Your task to perform on an android device: turn off notifications settings in the gmail app Image 0: 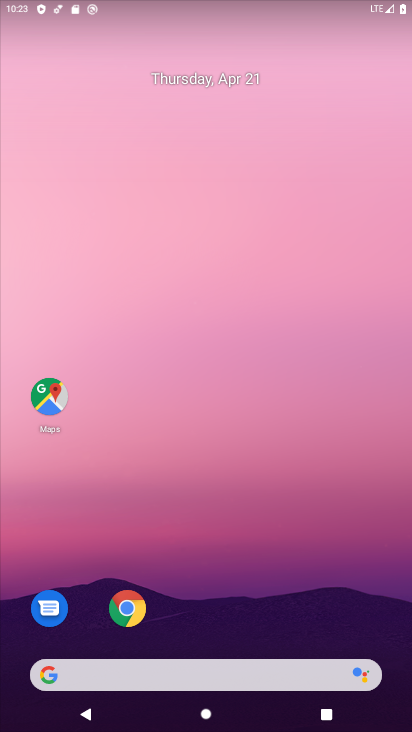
Step 0: drag from (209, 508) to (132, 111)
Your task to perform on an android device: turn off notifications settings in the gmail app Image 1: 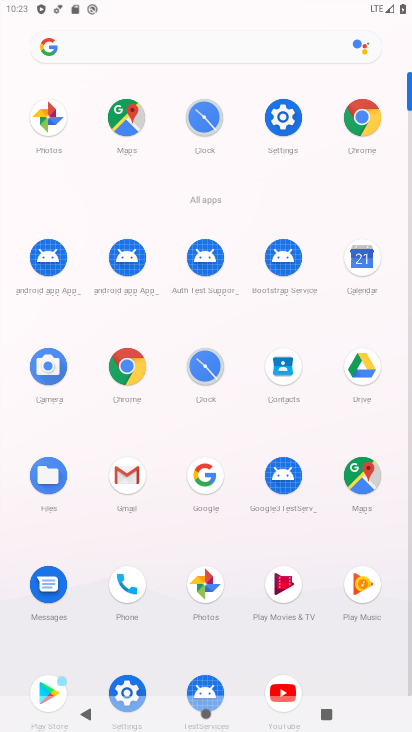
Step 1: click (117, 465)
Your task to perform on an android device: turn off notifications settings in the gmail app Image 2: 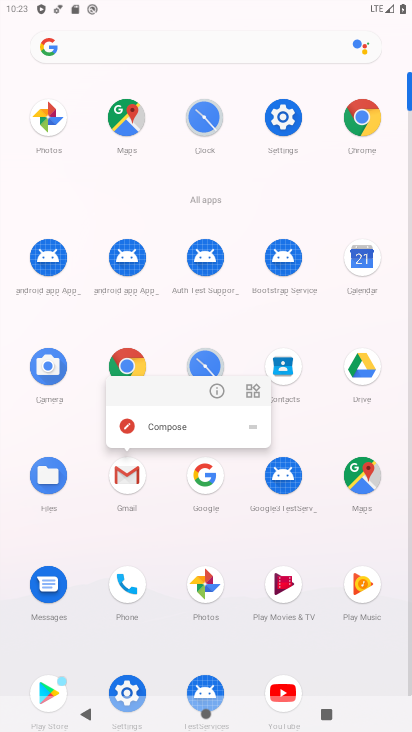
Step 2: click (128, 473)
Your task to perform on an android device: turn off notifications settings in the gmail app Image 3: 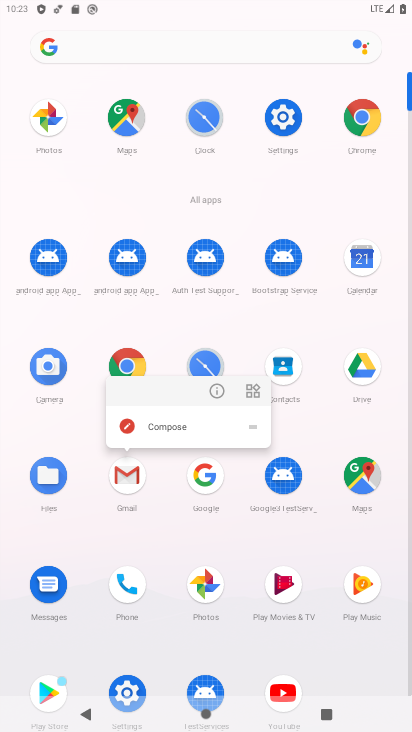
Step 3: click (128, 473)
Your task to perform on an android device: turn off notifications settings in the gmail app Image 4: 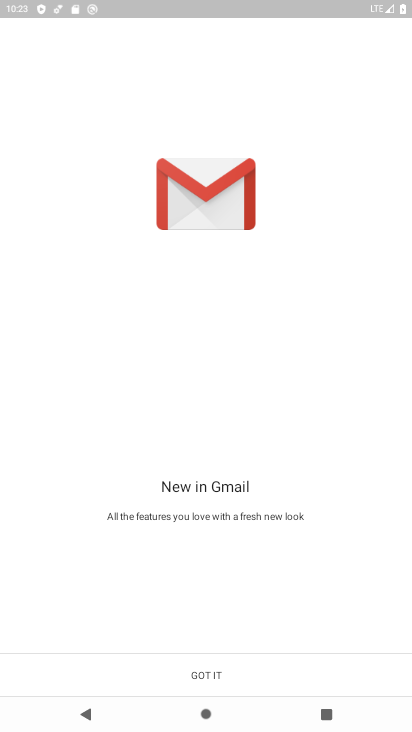
Step 4: click (206, 672)
Your task to perform on an android device: turn off notifications settings in the gmail app Image 5: 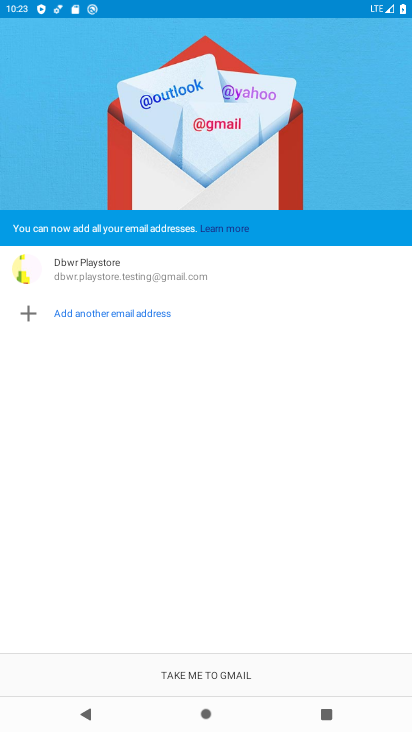
Step 5: click (206, 672)
Your task to perform on an android device: turn off notifications settings in the gmail app Image 6: 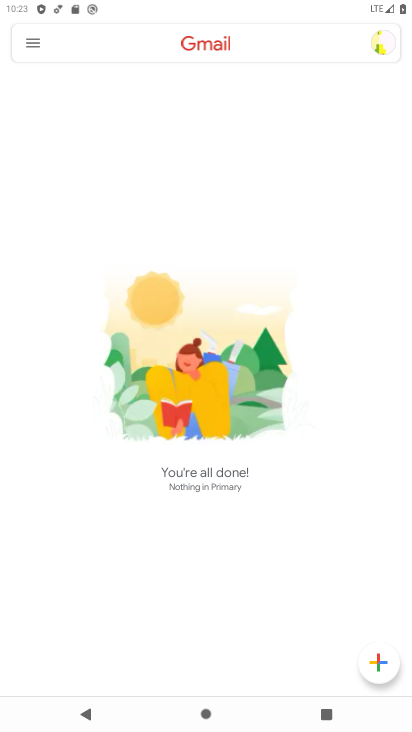
Step 6: click (23, 42)
Your task to perform on an android device: turn off notifications settings in the gmail app Image 7: 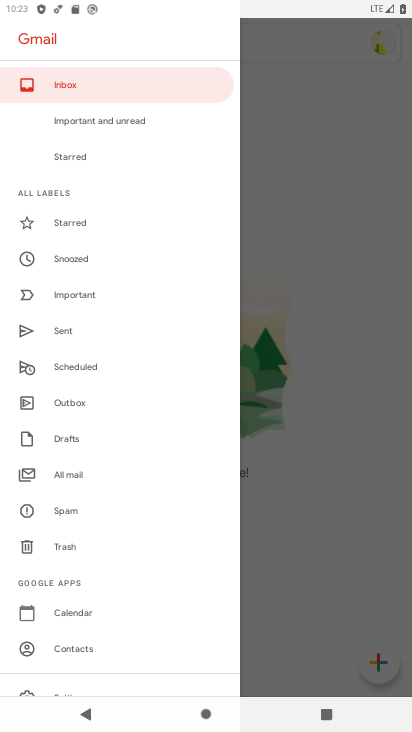
Step 7: drag from (130, 677) to (158, 287)
Your task to perform on an android device: turn off notifications settings in the gmail app Image 8: 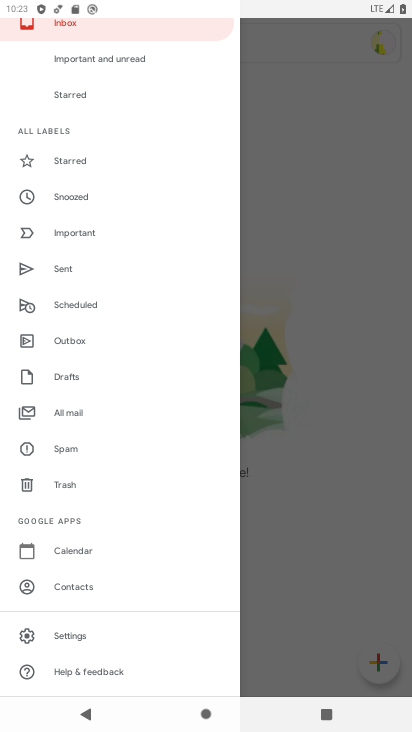
Step 8: click (59, 635)
Your task to perform on an android device: turn off notifications settings in the gmail app Image 9: 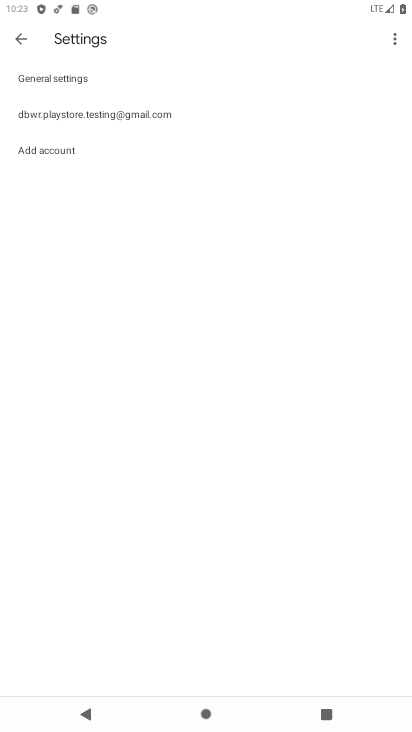
Step 9: click (85, 117)
Your task to perform on an android device: turn off notifications settings in the gmail app Image 10: 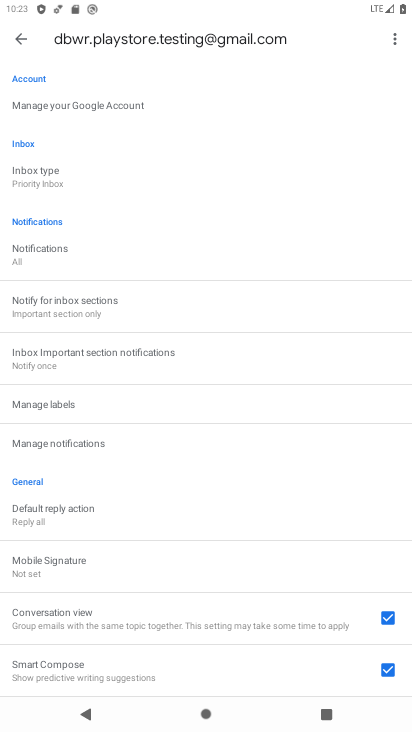
Step 10: click (59, 437)
Your task to perform on an android device: turn off notifications settings in the gmail app Image 11: 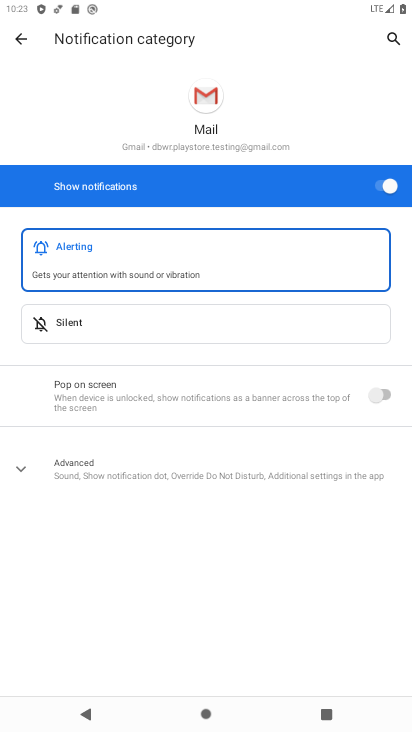
Step 11: click (387, 192)
Your task to perform on an android device: turn off notifications settings in the gmail app Image 12: 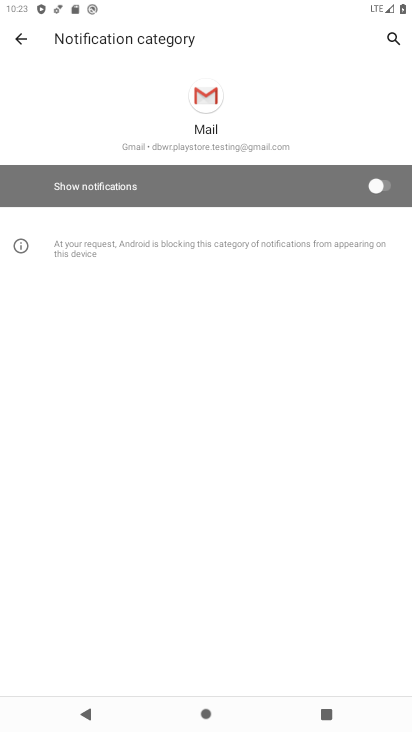
Step 12: task complete